Your task to perform on an android device: toggle javascript in the chrome app Image 0: 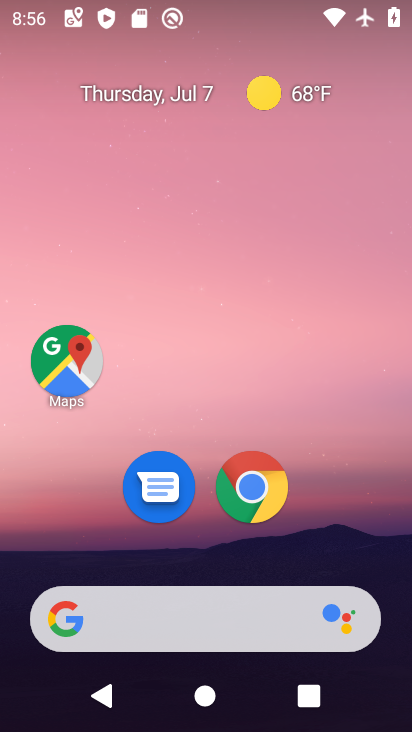
Step 0: drag from (179, 576) to (95, 49)
Your task to perform on an android device: toggle javascript in the chrome app Image 1: 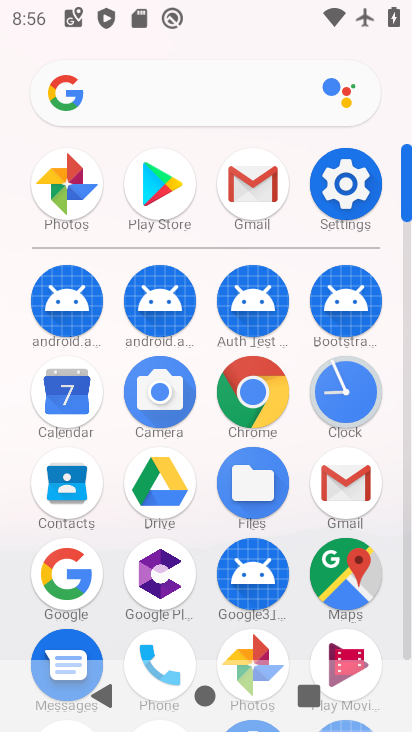
Step 1: click (267, 399)
Your task to perform on an android device: toggle javascript in the chrome app Image 2: 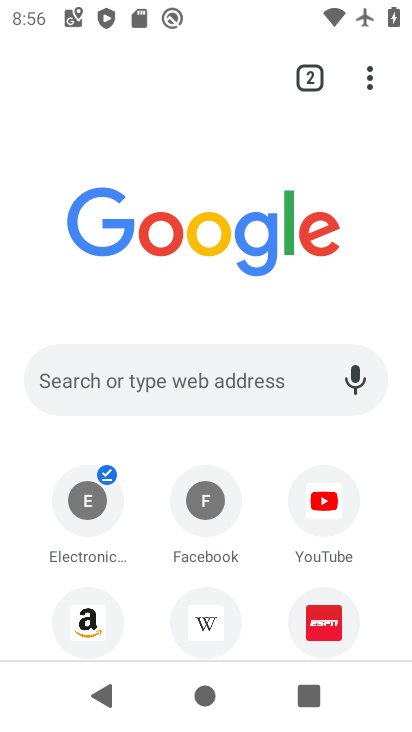
Step 2: drag from (367, 83) to (76, 534)
Your task to perform on an android device: toggle javascript in the chrome app Image 3: 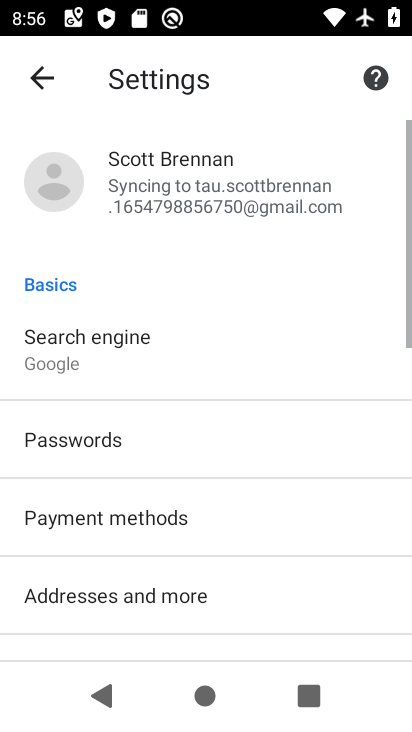
Step 3: drag from (76, 534) to (55, 134)
Your task to perform on an android device: toggle javascript in the chrome app Image 4: 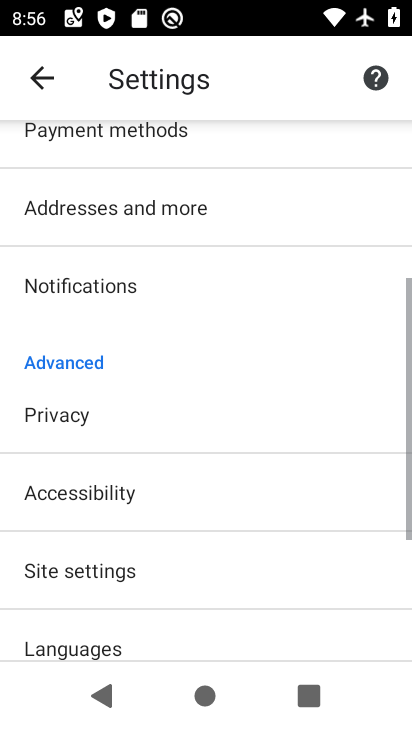
Step 4: drag from (84, 618) to (69, 467)
Your task to perform on an android device: toggle javascript in the chrome app Image 5: 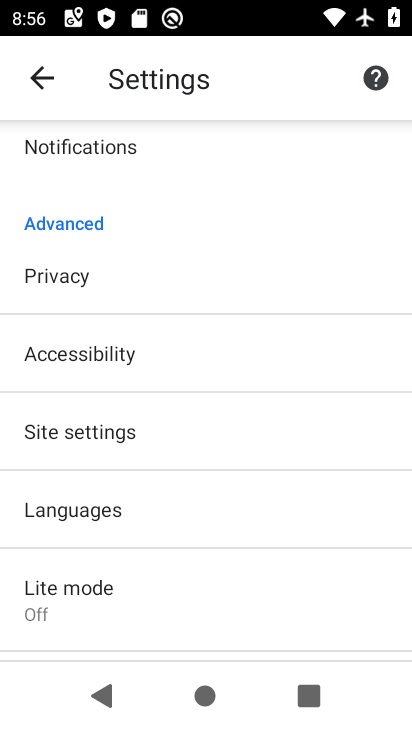
Step 5: click (63, 430)
Your task to perform on an android device: toggle javascript in the chrome app Image 6: 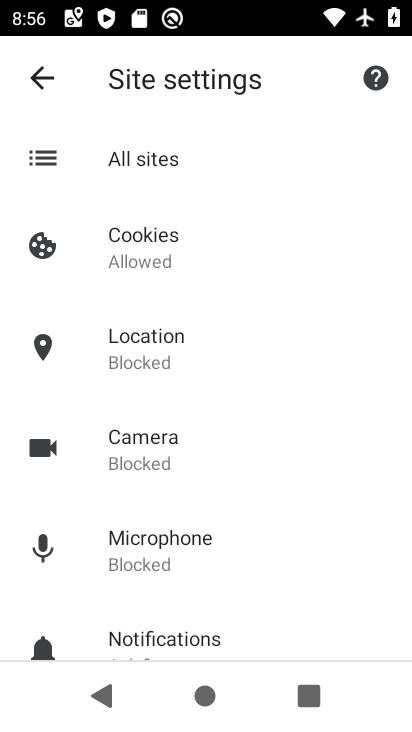
Step 6: drag from (137, 495) to (122, 319)
Your task to perform on an android device: toggle javascript in the chrome app Image 7: 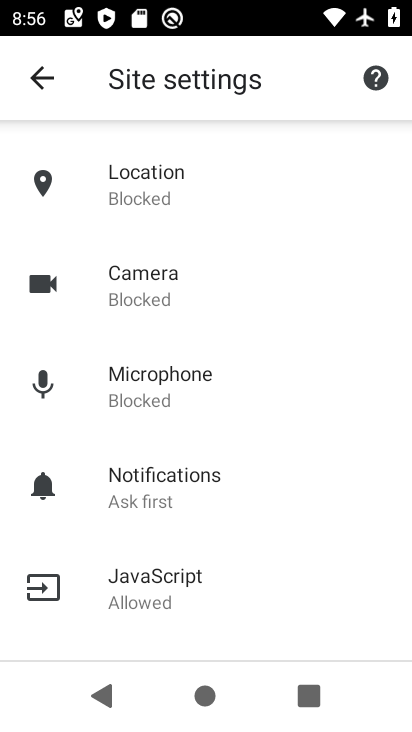
Step 7: click (168, 589)
Your task to perform on an android device: toggle javascript in the chrome app Image 8: 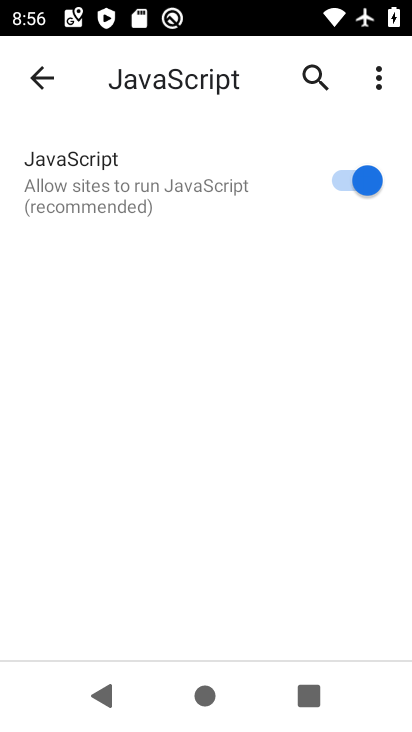
Step 8: click (357, 196)
Your task to perform on an android device: toggle javascript in the chrome app Image 9: 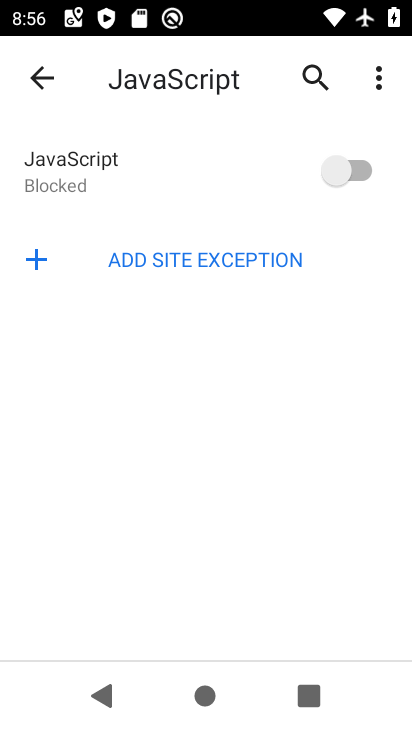
Step 9: task complete